Your task to perform on an android device: What's the weather going to be tomorrow? Image 0: 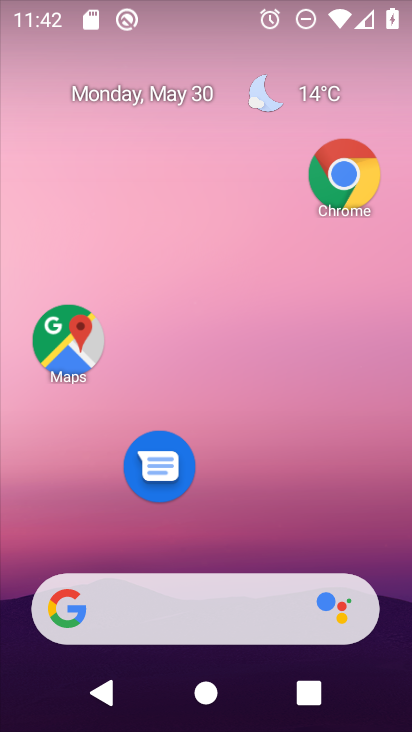
Step 0: drag from (321, 363) to (319, 207)
Your task to perform on an android device: What's the weather going to be tomorrow? Image 1: 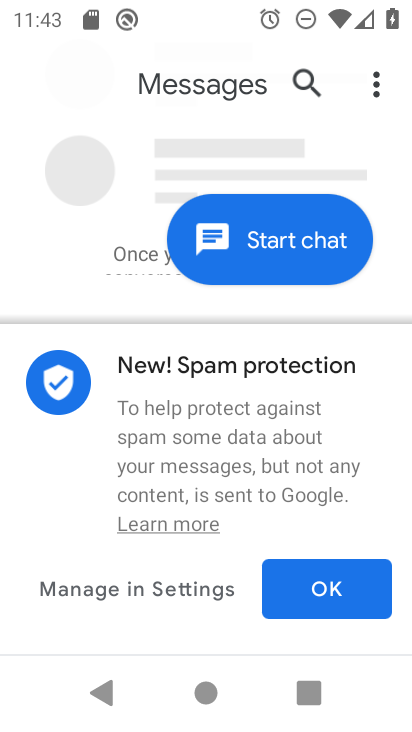
Step 1: press home button
Your task to perform on an android device: What's the weather going to be tomorrow? Image 2: 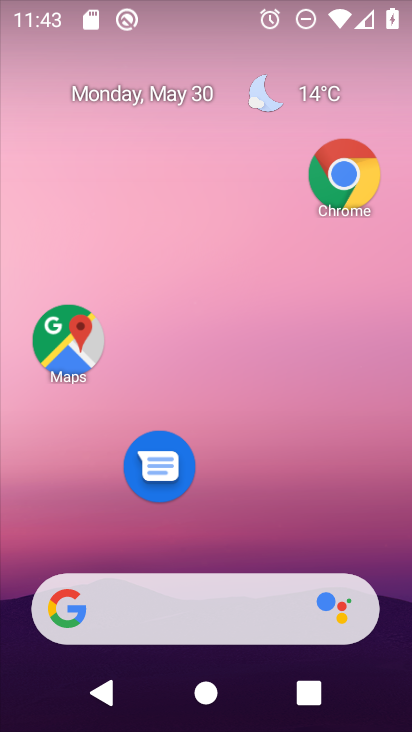
Step 2: click (194, 592)
Your task to perform on an android device: What's the weather going to be tomorrow? Image 3: 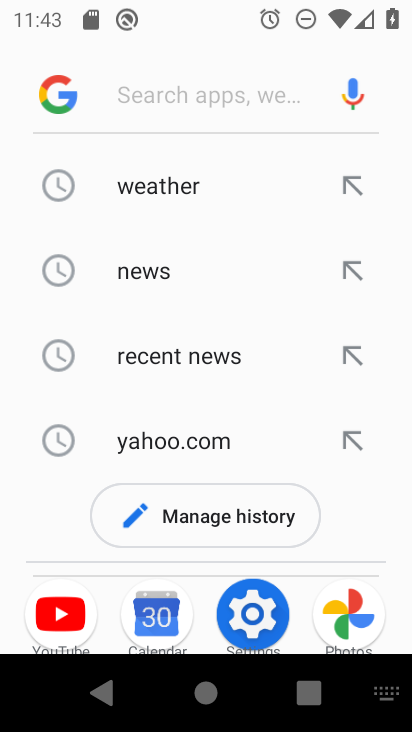
Step 3: click (180, 171)
Your task to perform on an android device: What's the weather going to be tomorrow? Image 4: 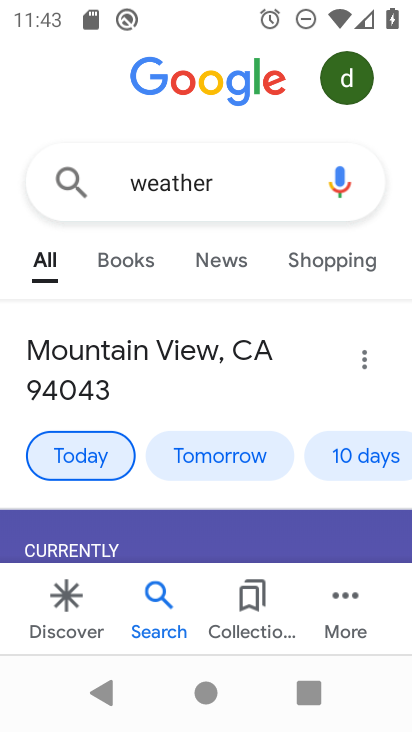
Step 4: click (186, 459)
Your task to perform on an android device: What's the weather going to be tomorrow? Image 5: 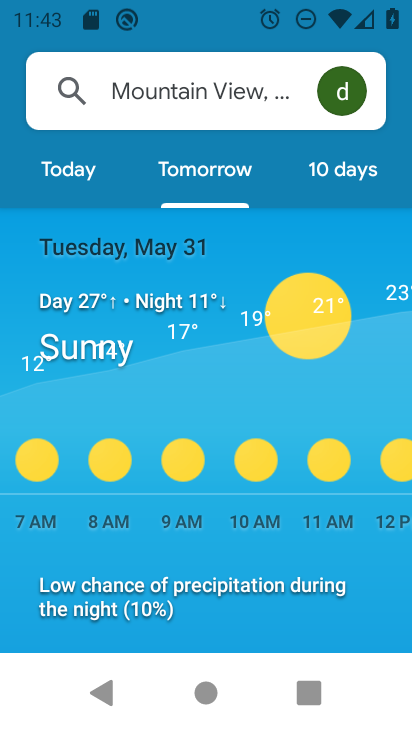
Step 5: task complete